Your task to perform on an android device: open chrome privacy settings Image 0: 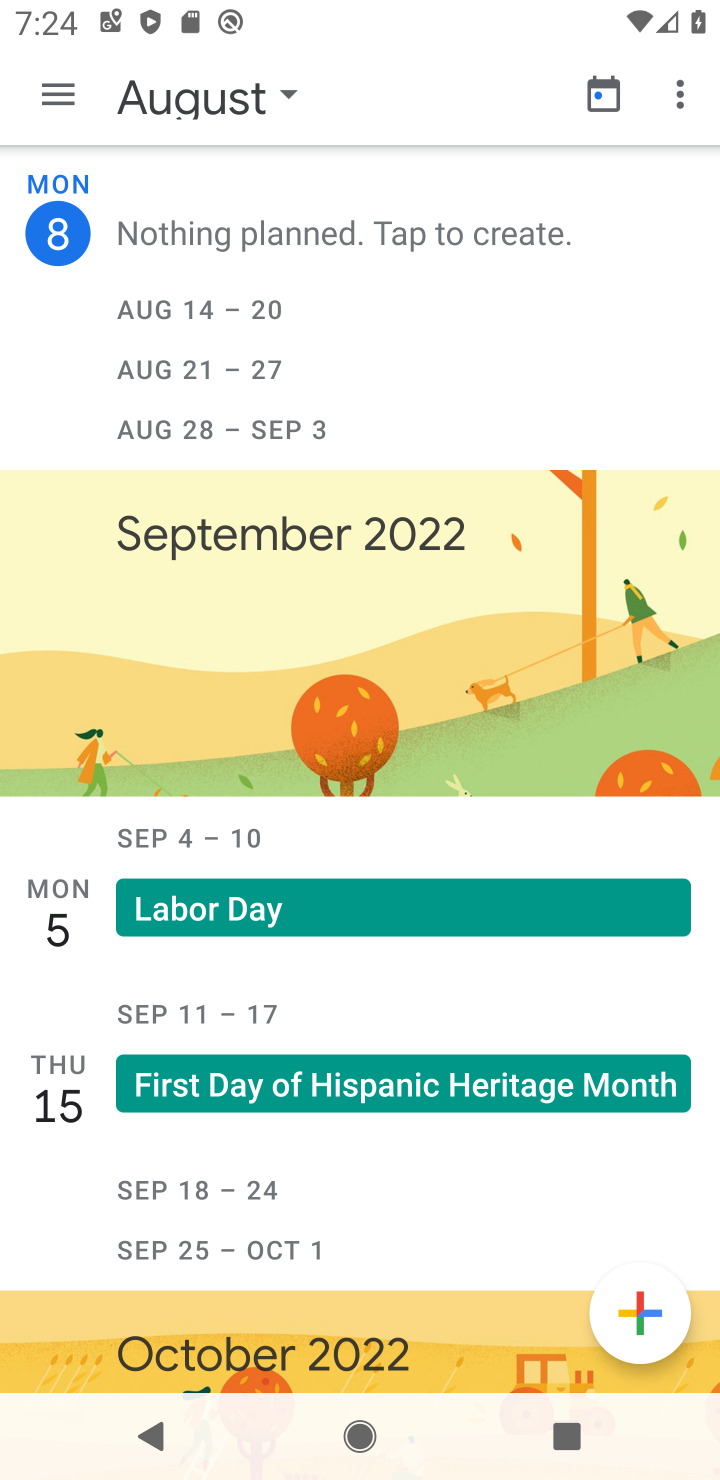
Step 0: press home button
Your task to perform on an android device: open chrome privacy settings Image 1: 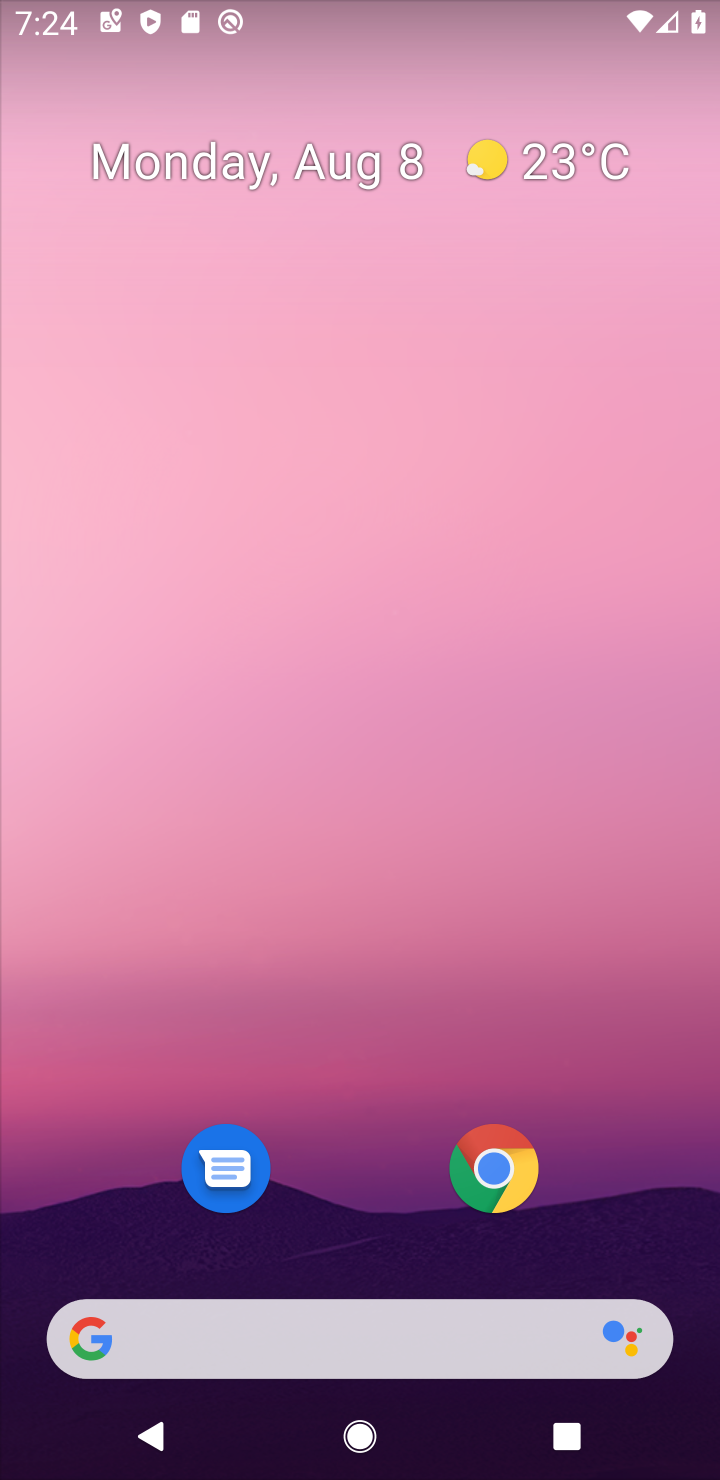
Step 1: drag from (675, 1243) to (305, 14)
Your task to perform on an android device: open chrome privacy settings Image 2: 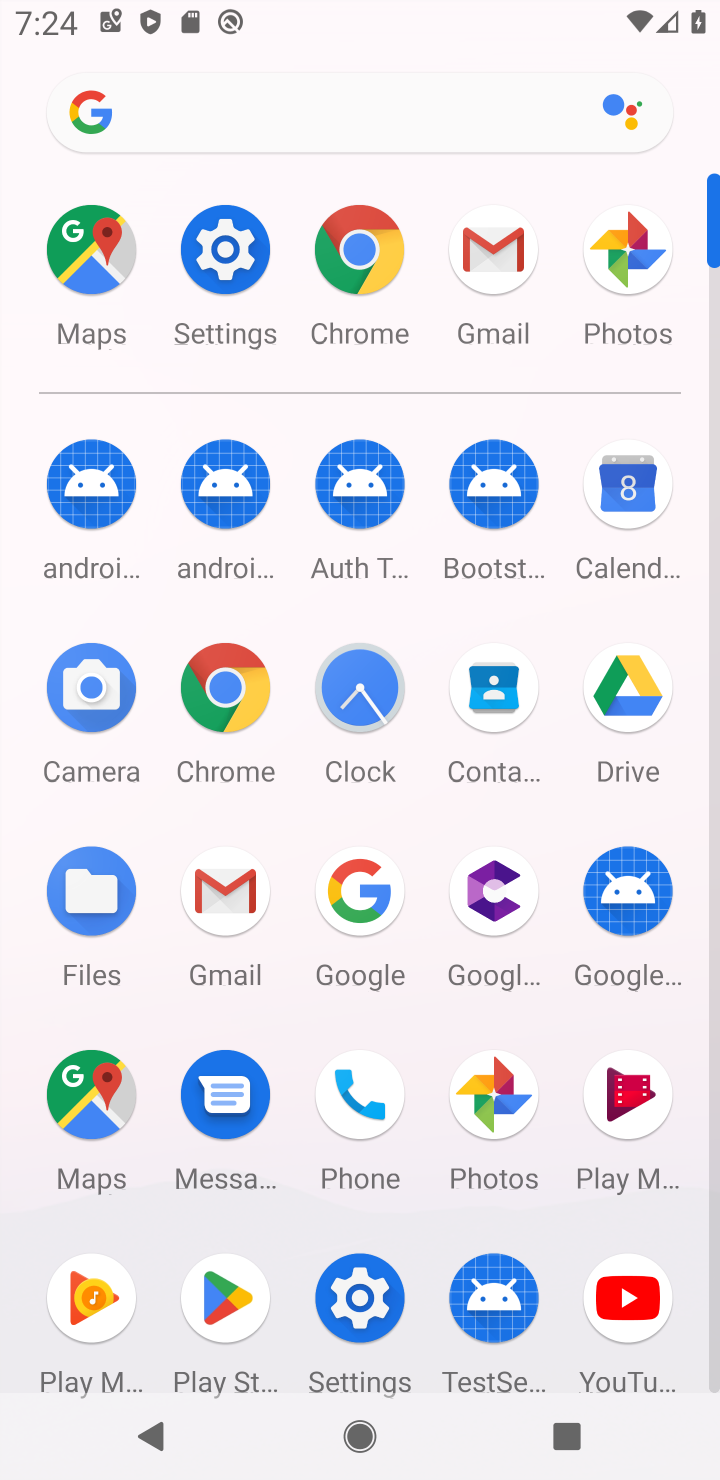
Step 2: click (365, 1283)
Your task to perform on an android device: open chrome privacy settings Image 3: 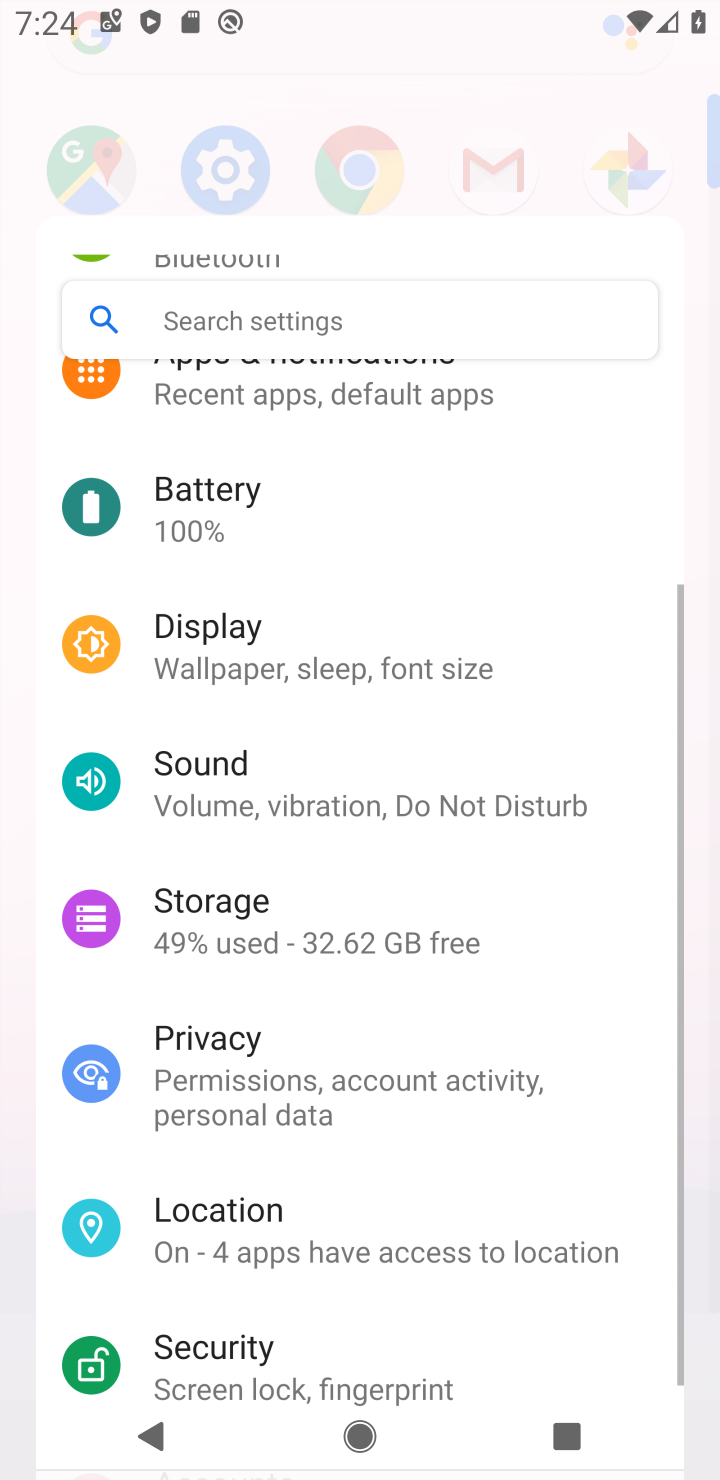
Step 3: press home button
Your task to perform on an android device: open chrome privacy settings Image 4: 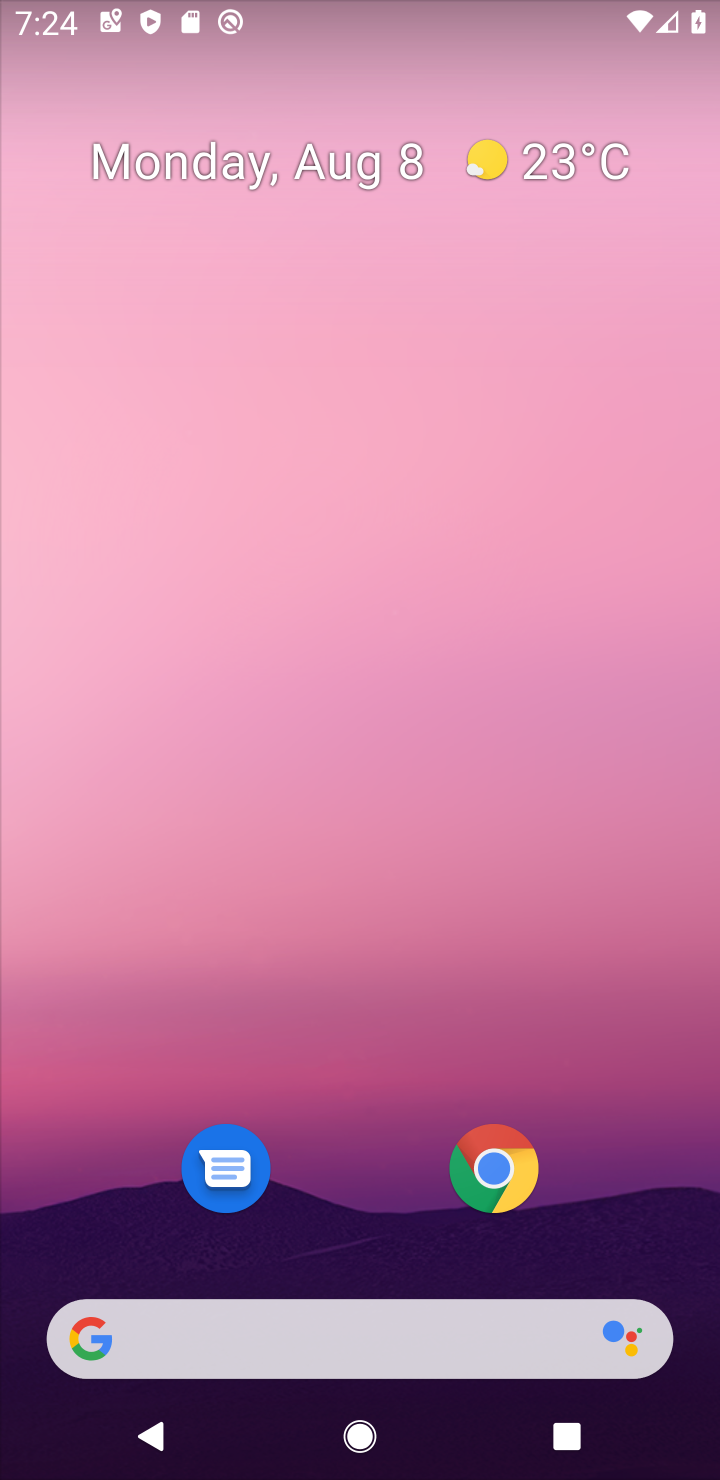
Step 4: click (506, 1189)
Your task to perform on an android device: open chrome privacy settings Image 5: 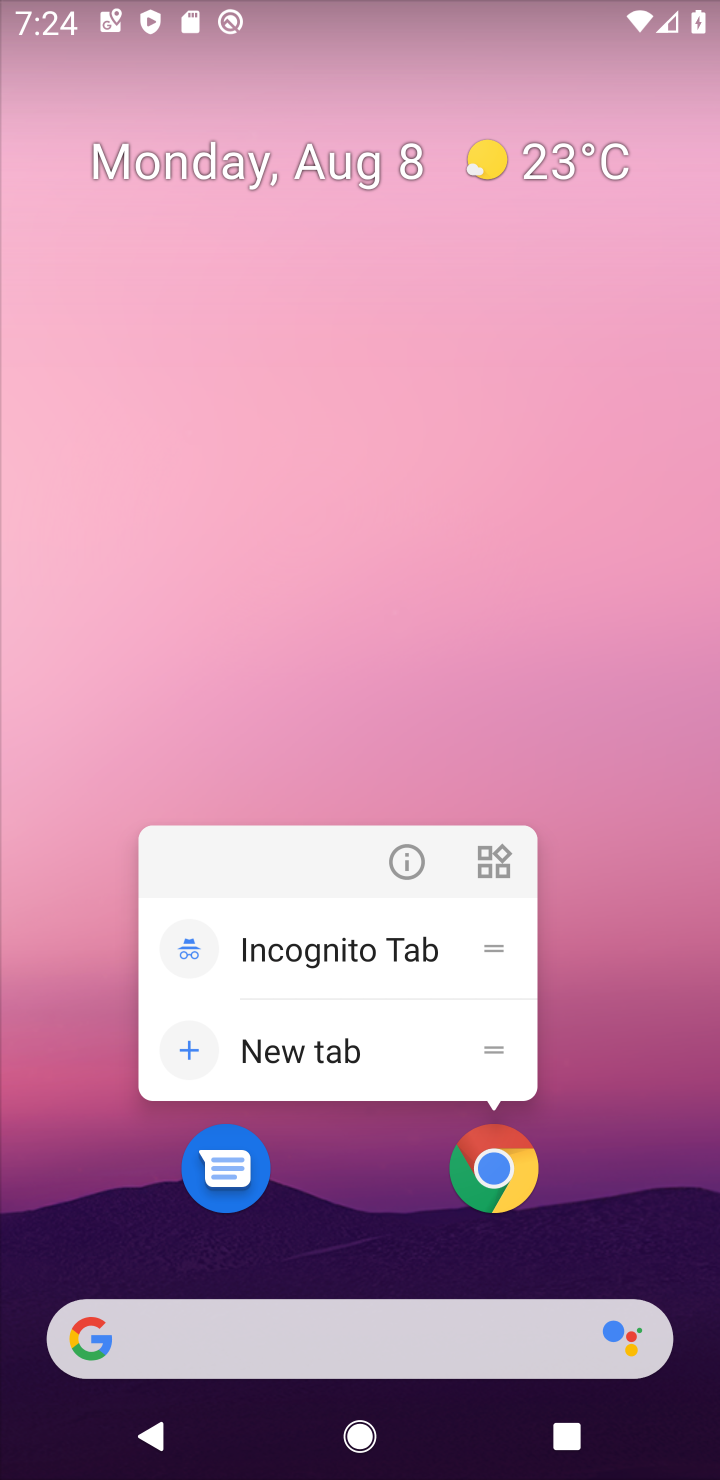
Step 5: click (490, 1108)
Your task to perform on an android device: open chrome privacy settings Image 6: 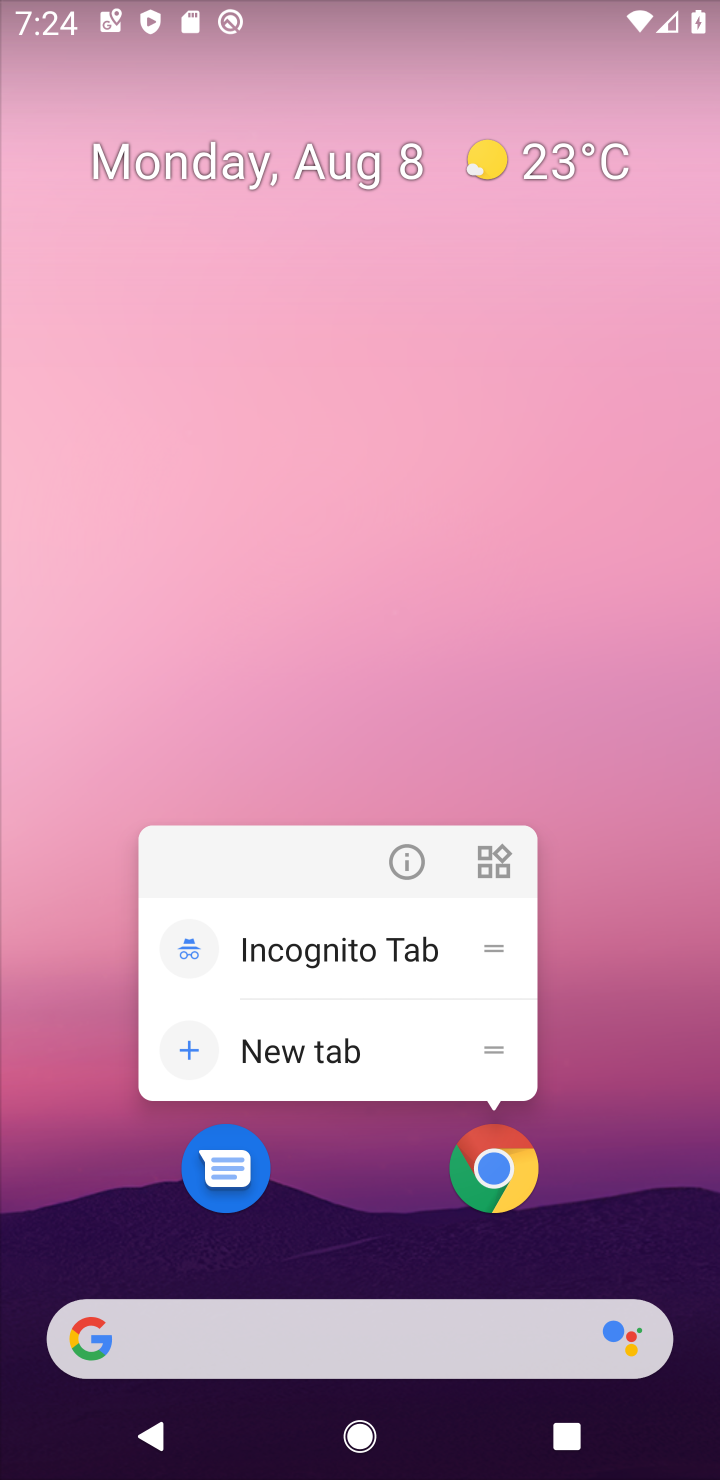
Step 6: click (488, 1153)
Your task to perform on an android device: open chrome privacy settings Image 7: 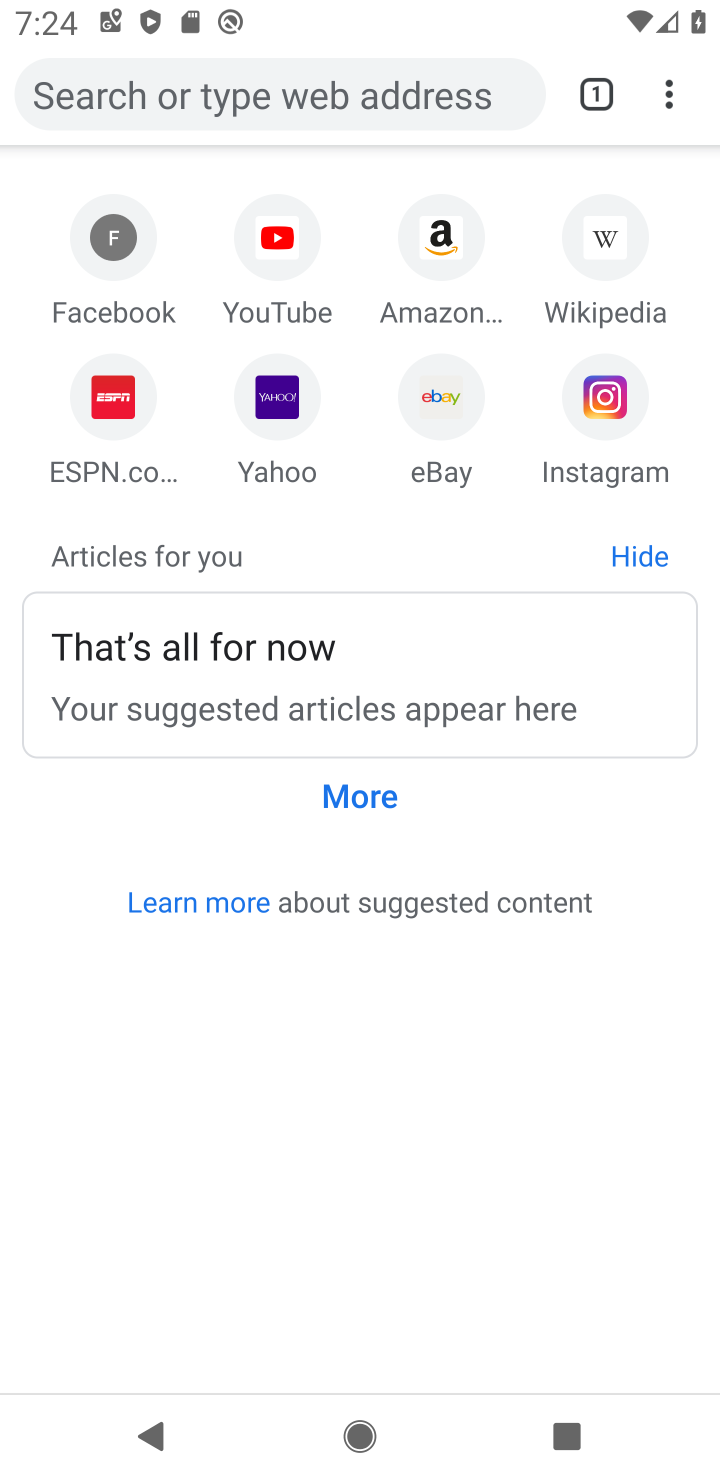
Step 7: click (664, 90)
Your task to perform on an android device: open chrome privacy settings Image 8: 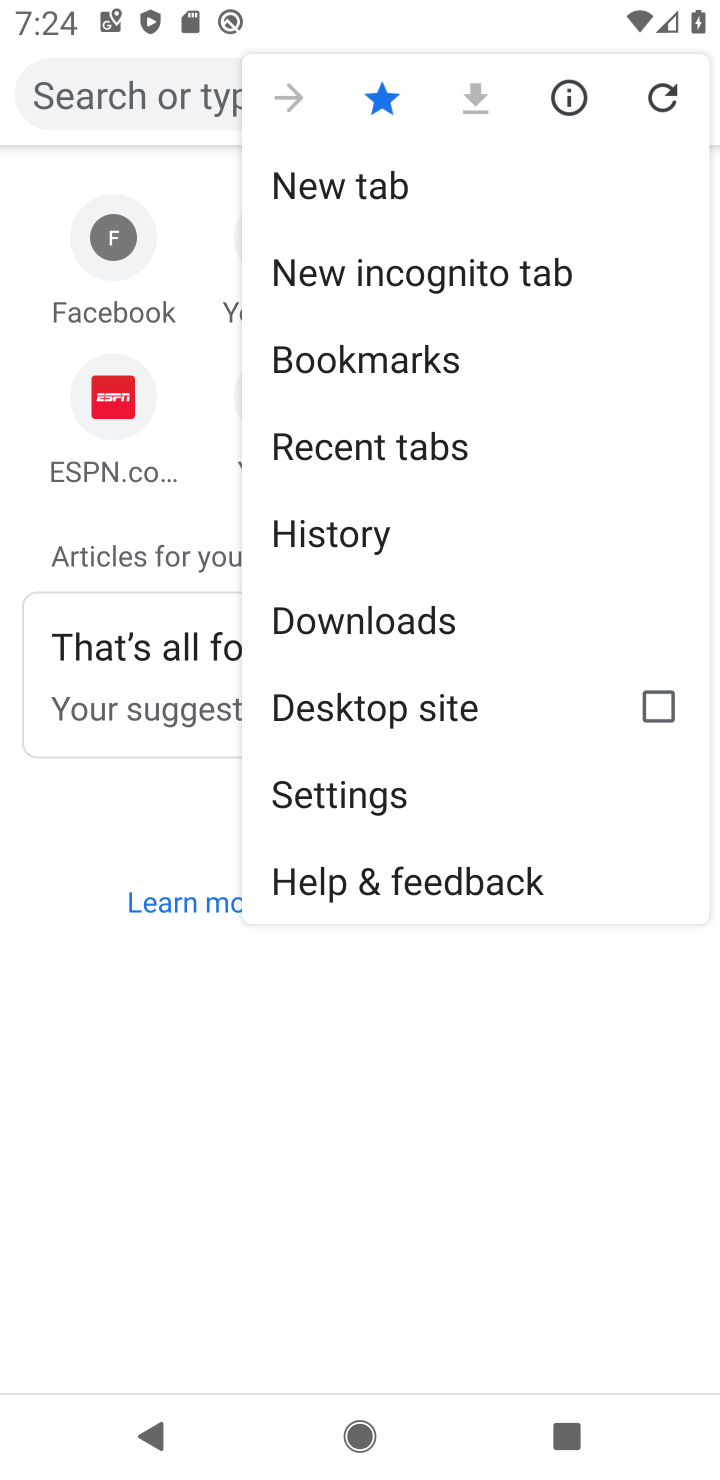
Step 8: click (389, 791)
Your task to perform on an android device: open chrome privacy settings Image 9: 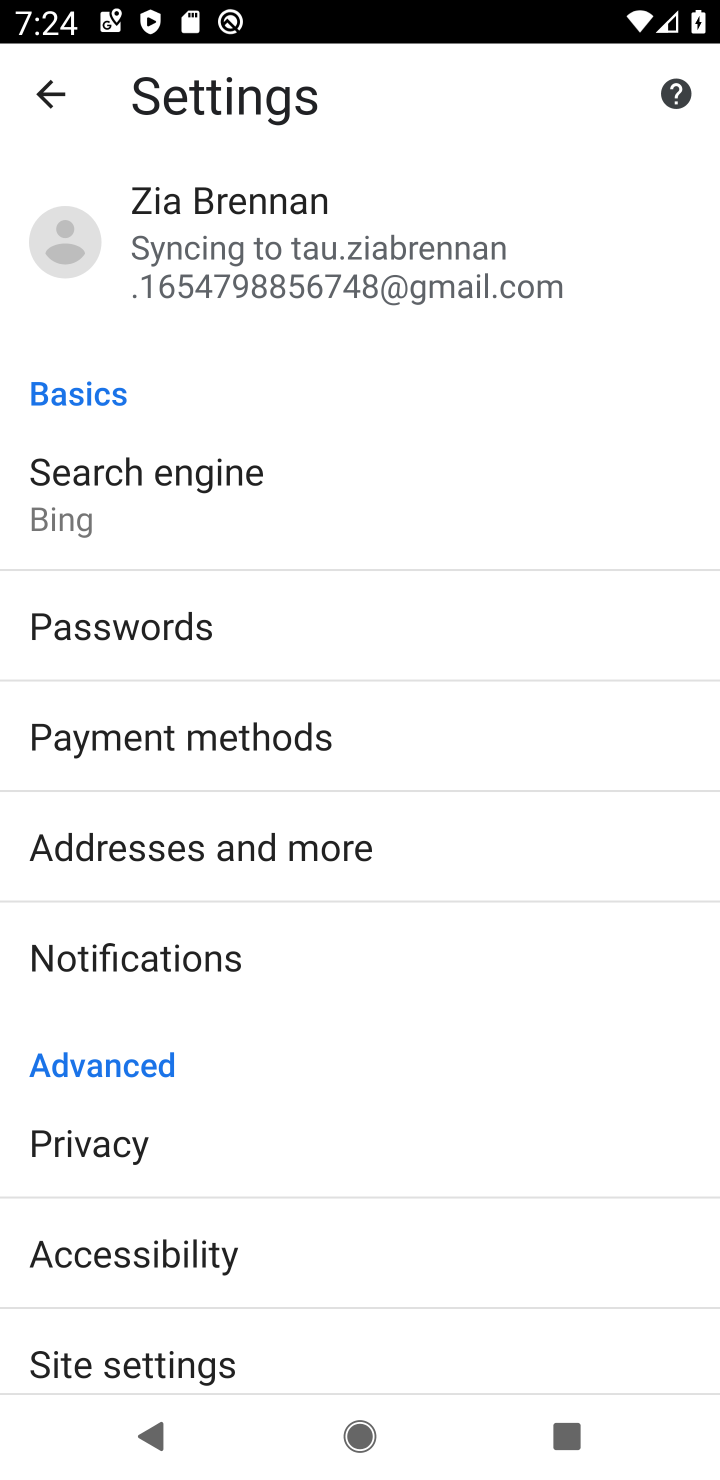
Step 9: click (138, 1178)
Your task to perform on an android device: open chrome privacy settings Image 10: 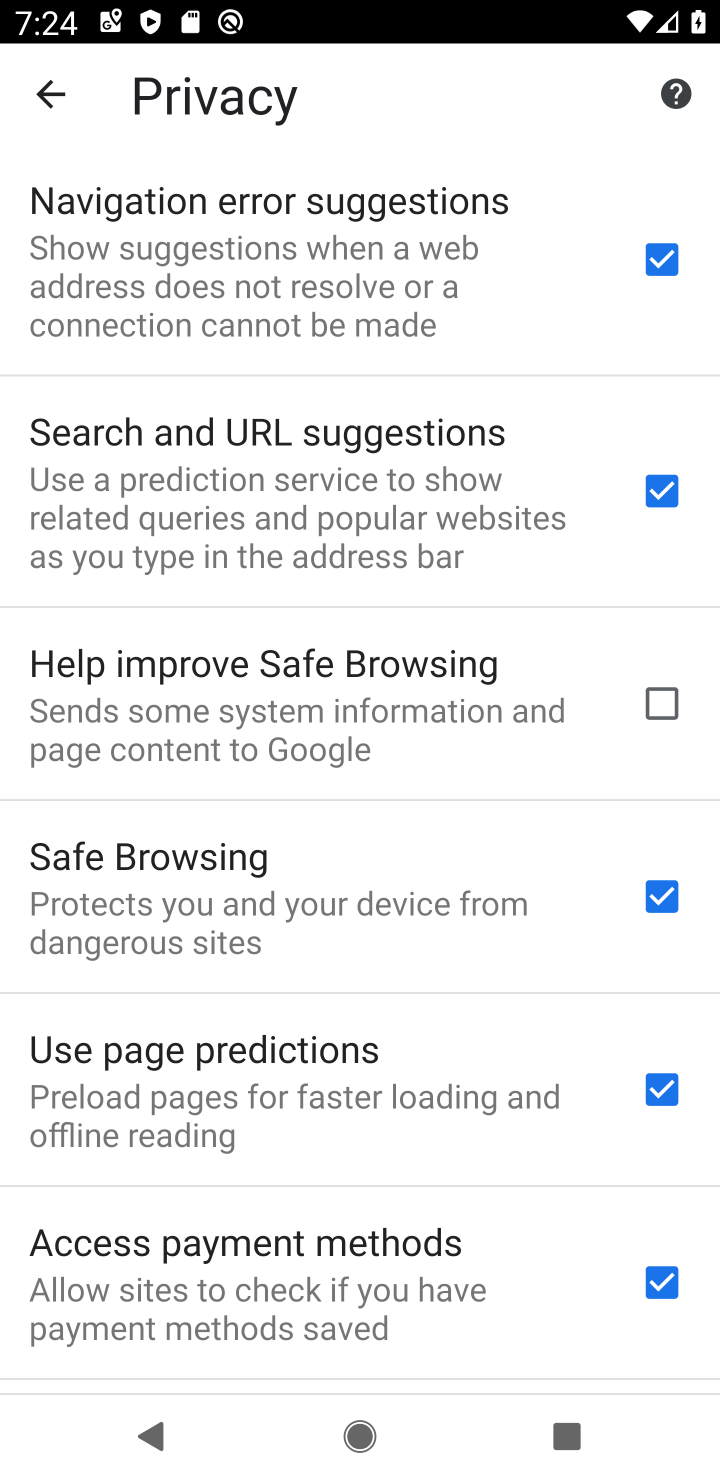
Step 10: task complete